Your task to perform on an android device: Open Chrome and go to settings Image 0: 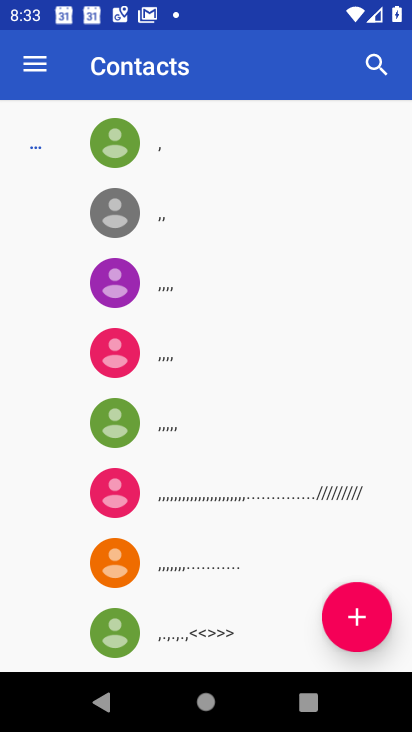
Step 0: press home button
Your task to perform on an android device: Open Chrome and go to settings Image 1: 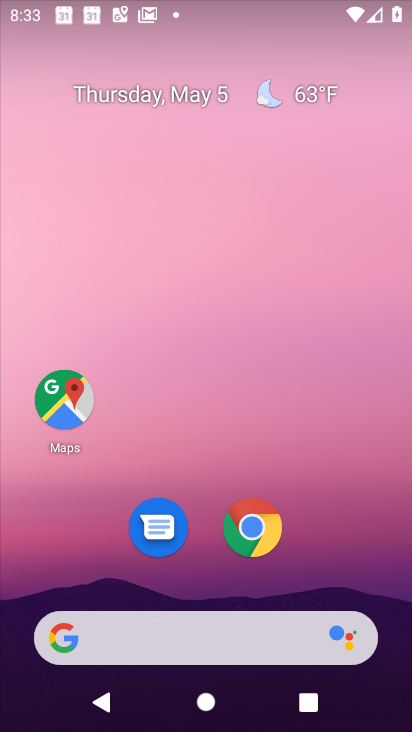
Step 1: click (256, 518)
Your task to perform on an android device: Open Chrome and go to settings Image 2: 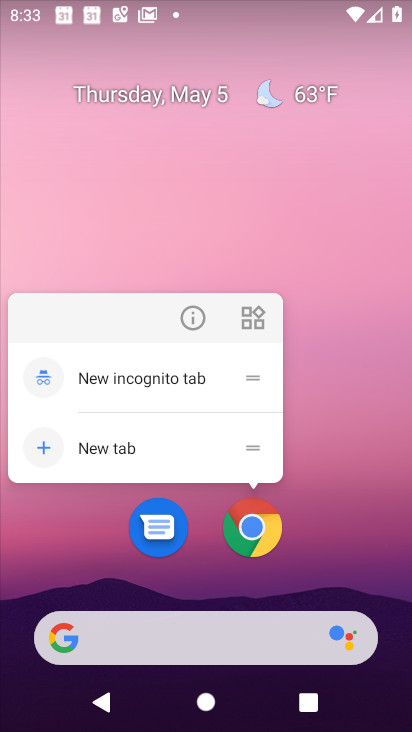
Step 2: click (256, 518)
Your task to perform on an android device: Open Chrome and go to settings Image 3: 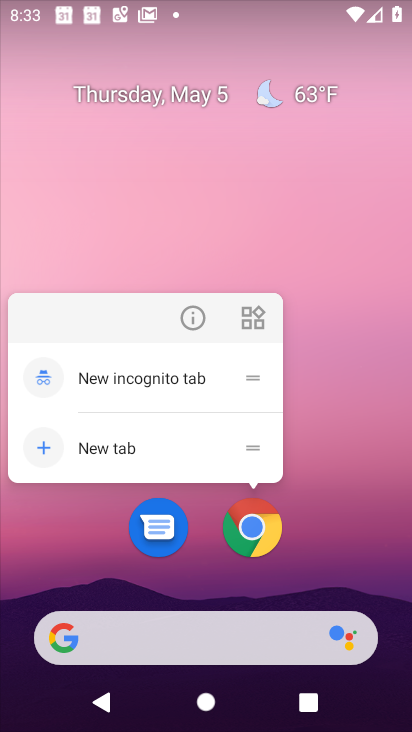
Step 3: click (257, 518)
Your task to perform on an android device: Open Chrome and go to settings Image 4: 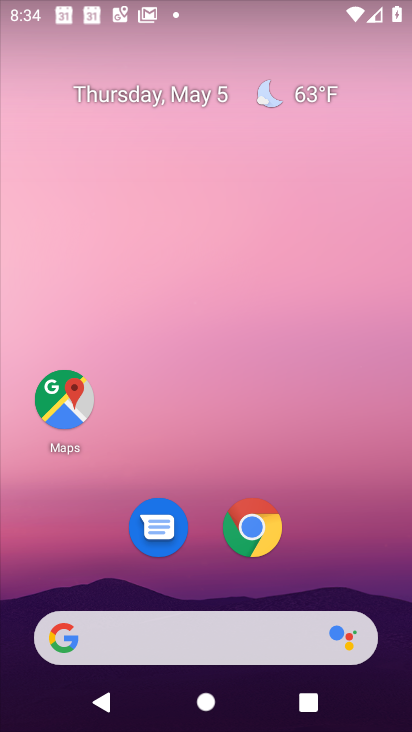
Step 4: click (253, 540)
Your task to perform on an android device: Open Chrome and go to settings Image 5: 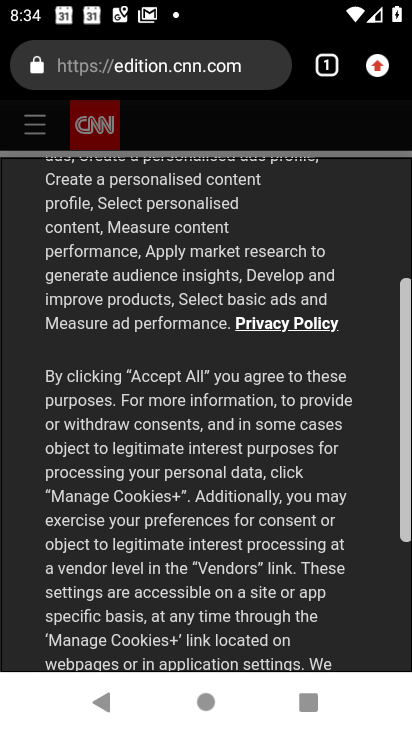
Step 5: drag from (381, 63) to (299, 574)
Your task to perform on an android device: Open Chrome and go to settings Image 6: 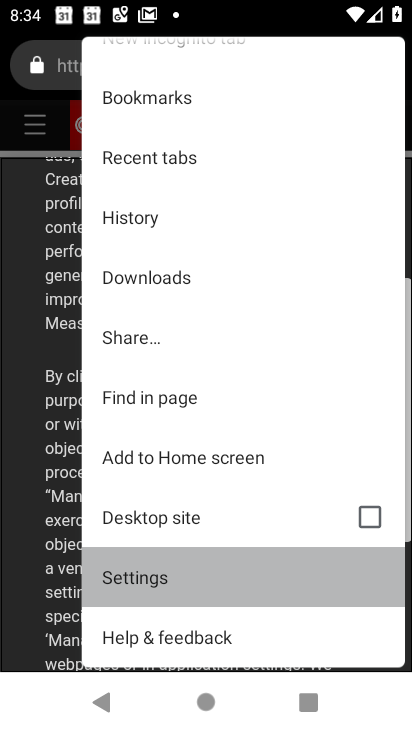
Step 6: click (299, 574)
Your task to perform on an android device: Open Chrome and go to settings Image 7: 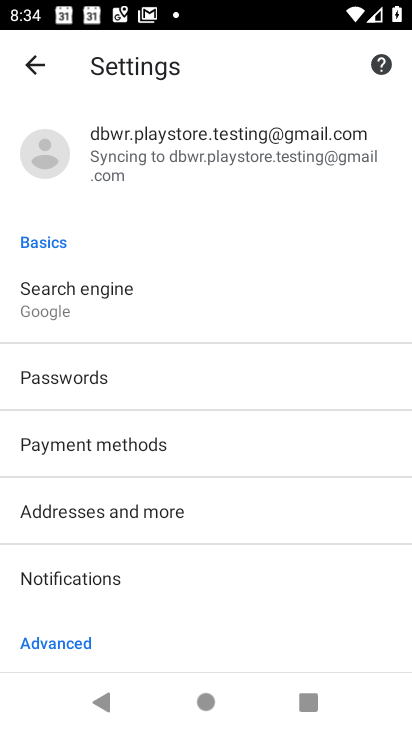
Step 7: task complete